Your task to perform on an android device: toggle javascript in the chrome app Image 0: 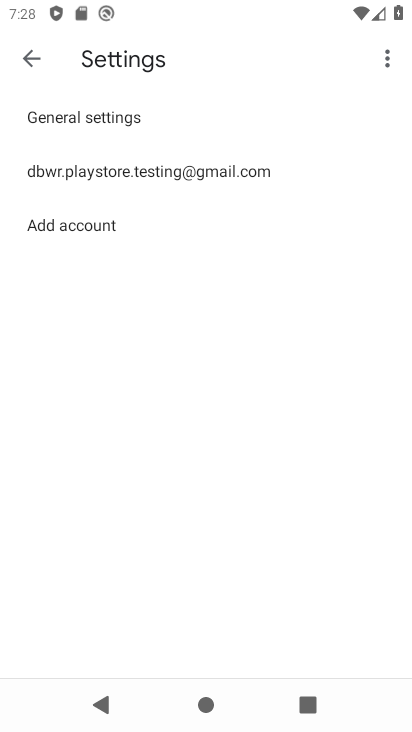
Step 0: press home button
Your task to perform on an android device: toggle javascript in the chrome app Image 1: 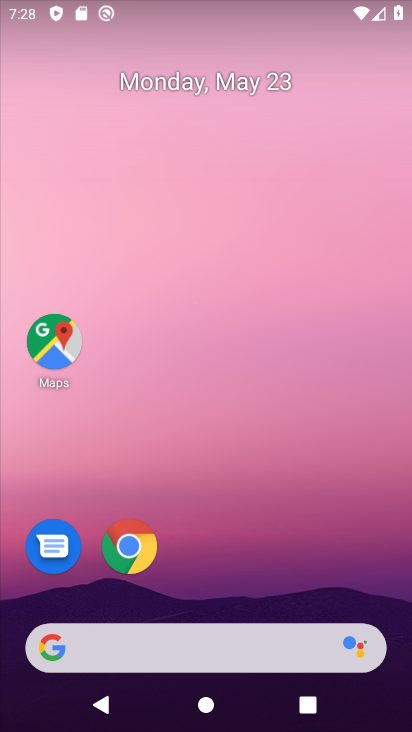
Step 1: drag from (375, 515) to (387, 115)
Your task to perform on an android device: toggle javascript in the chrome app Image 2: 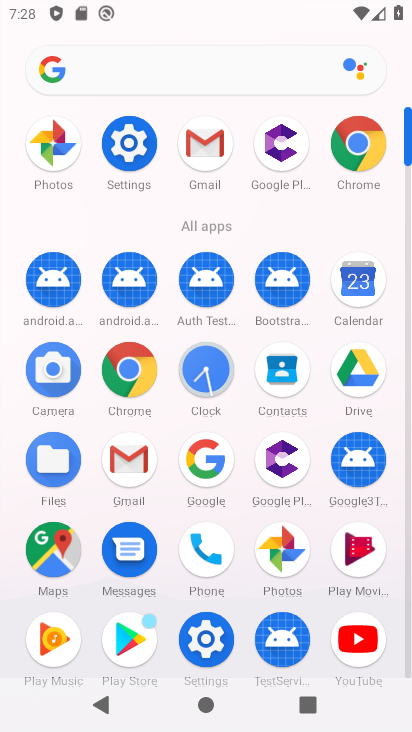
Step 2: click (145, 395)
Your task to perform on an android device: toggle javascript in the chrome app Image 3: 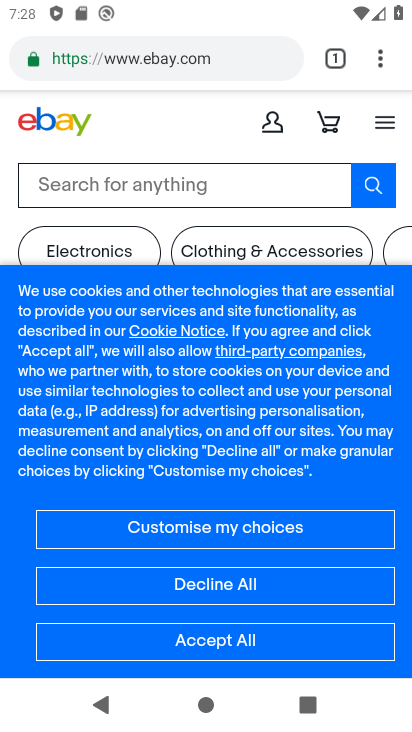
Step 3: click (386, 60)
Your task to perform on an android device: toggle javascript in the chrome app Image 4: 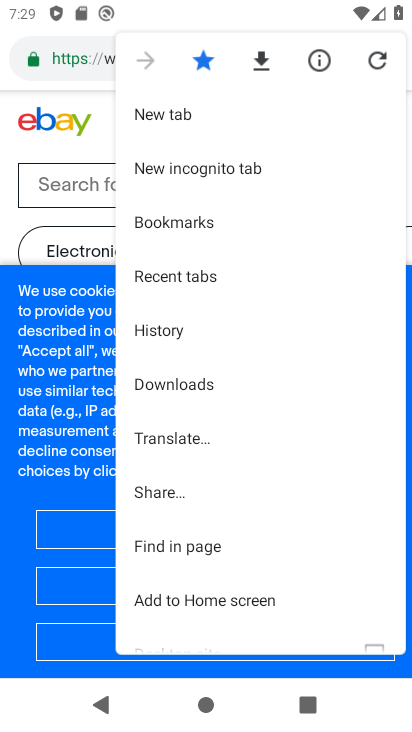
Step 4: drag from (347, 458) to (346, 378)
Your task to perform on an android device: toggle javascript in the chrome app Image 5: 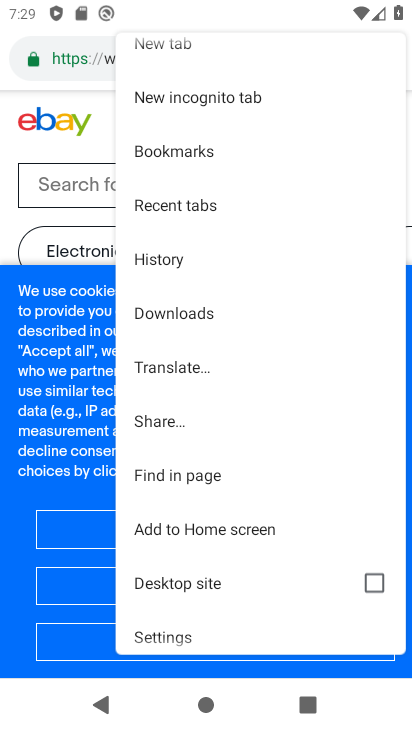
Step 5: drag from (346, 502) to (346, 414)
Your task to perform on an android device: toggle javascript in the chrome app Image 6: 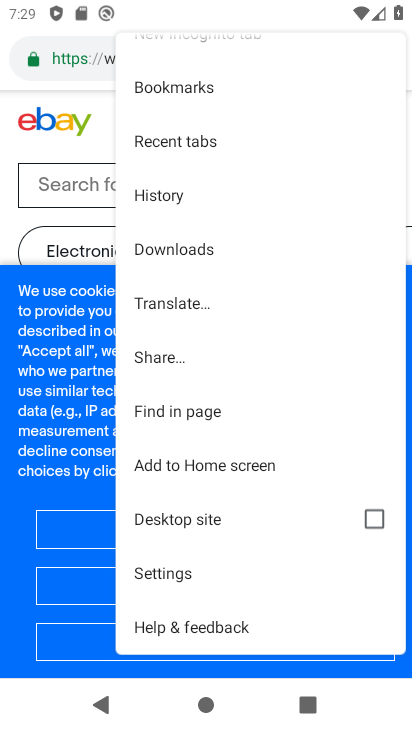
Step 6: drag from (310, 545) to (332, 416)
Your task to perform on an android device: toggle javascript in the chrome app Image 7: 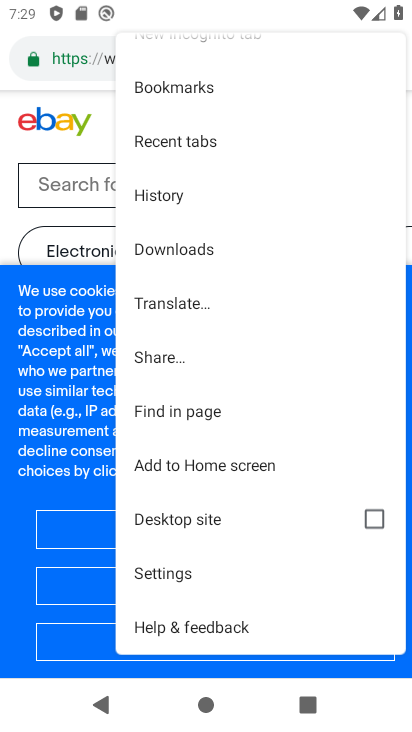
Step 7: click (208, 585)
Your task to perform on an android device: toggle javascript in the chrome app Image 8: 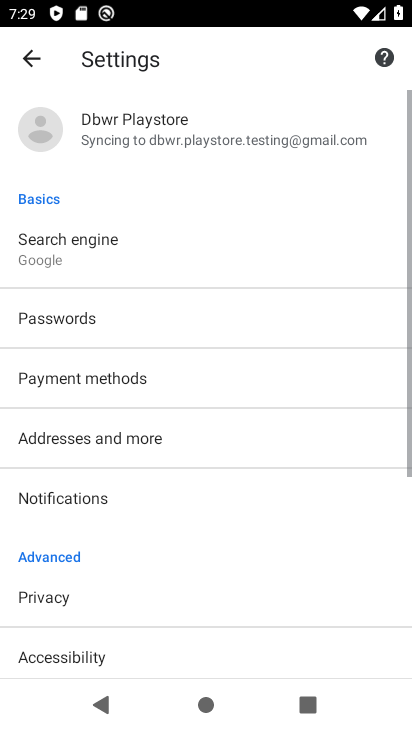
Step 8: drag from (336, 574) to (350, 488)
Your task to perform on an android device: toggle javascript in the chrome app Image 9: 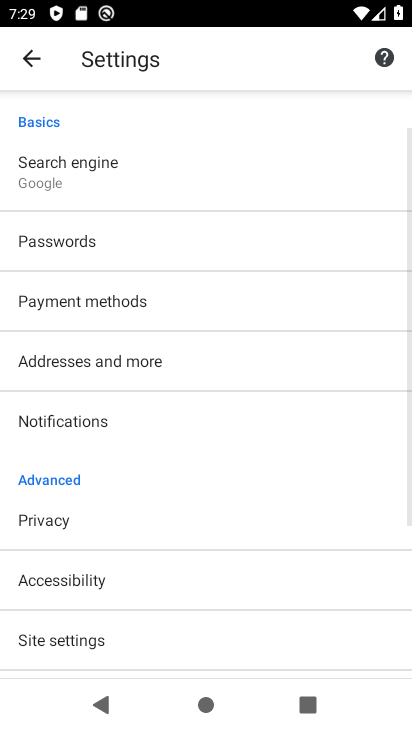
Step 9: drag from (352, 598) to (348, 480)
Your task to perform on an android device: toggle javascript in the chrome app Image 10: 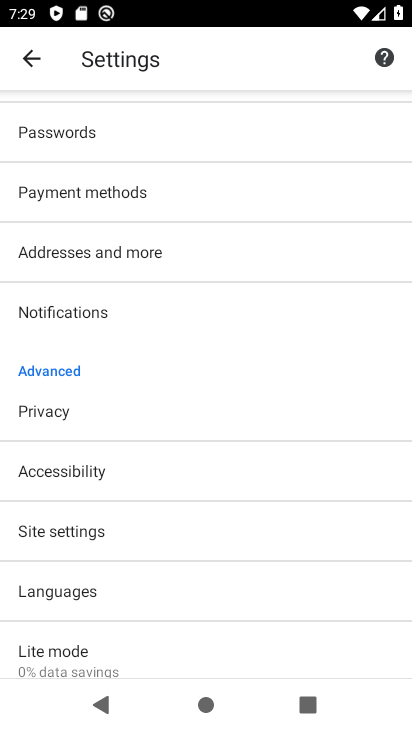
Step 10: drag from (330, 617) to (338, 505)
Your task to perform on an android device: toggle javascript in the chrome app Image 11: 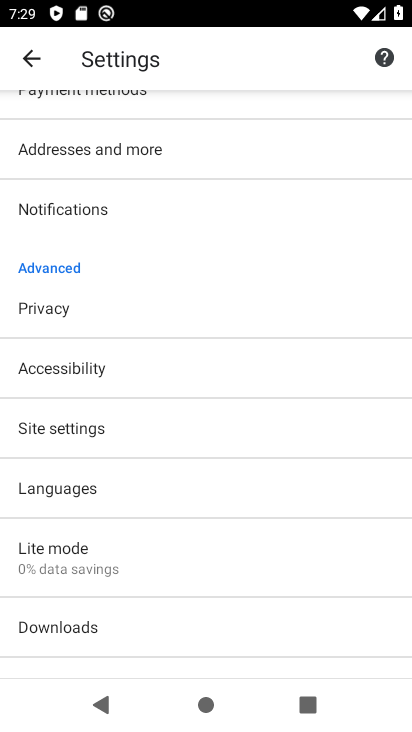
Step 11: drag from (355, 633) to (356, 531)
Your task to perform on an android device: toggle javascript in the chrome app Image 12: 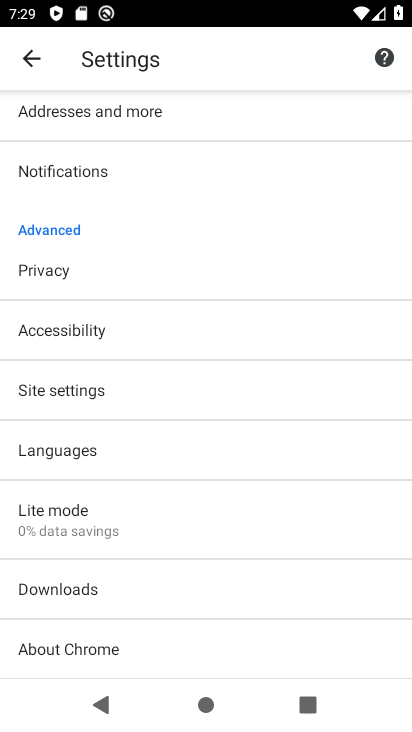
Step 12: drag from (359, 642) to (355, 480)
Your task to perform on an android device: toggle javascript in the chrome app Image 13: 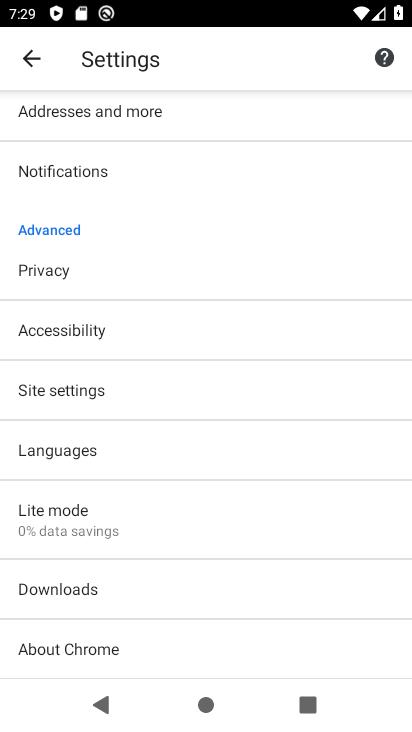
Step 13: drag from (358, 429) to (352, 595)
Your task to perform on an android device: toggle javascript in the chrome app Image 14: 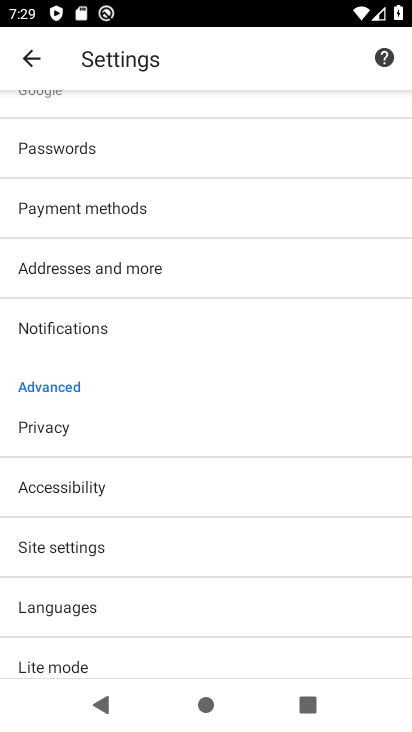
Step 14: click (248, 558)
Your task to perform on an android device: toggle javascript in the chrome app Image 15: 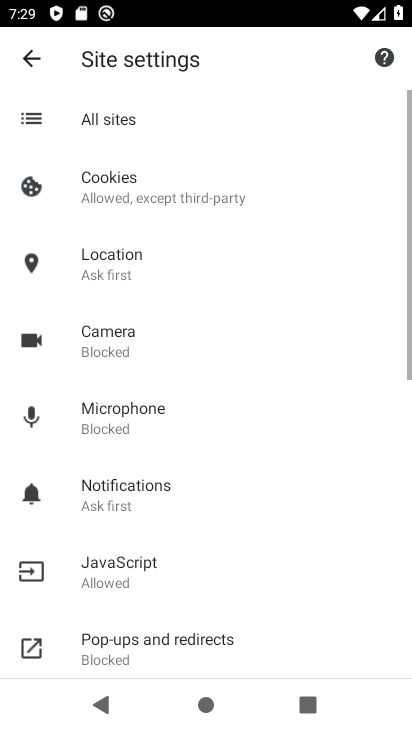
Step 15: drag from (349, 586) to (353, 515)
Your task to perform on an android device: toggle javascript in the chrome app Image 16: 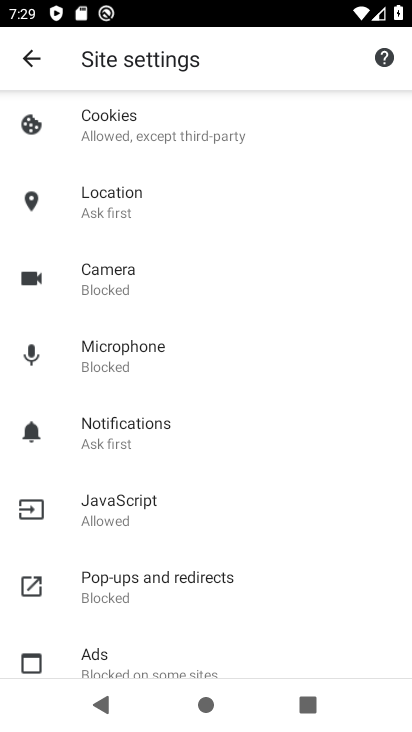
Step 16: drag from (360, 621) to (355, 523)
Your task to perform on an android device: toggle javascript in the chrome app Image 17: 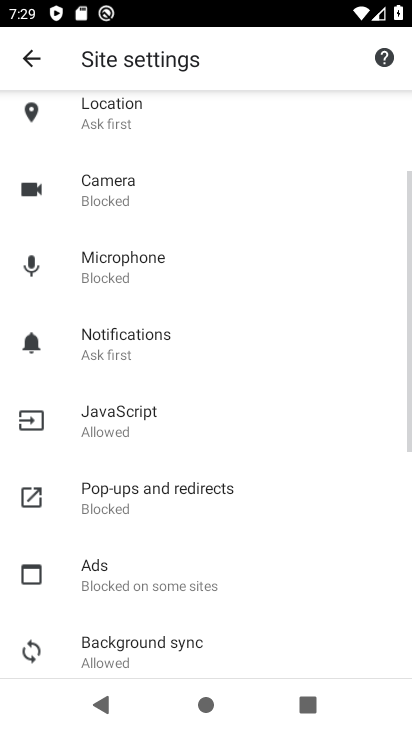
Step 17: drag from (375, 577) to (370, 441)
Your task to perform on an android device: toggle javascript in the chrome app Image 18: 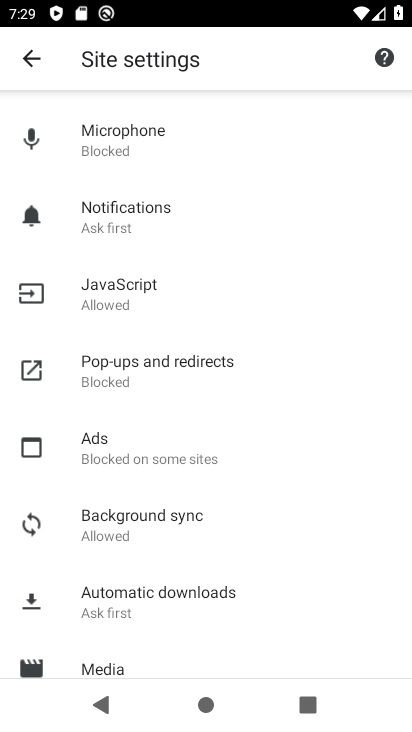
Step 18: drag from (382, 561) to (388, 389)
Your task to perform on an android device: toggle javascript in the chrome app Image 19: 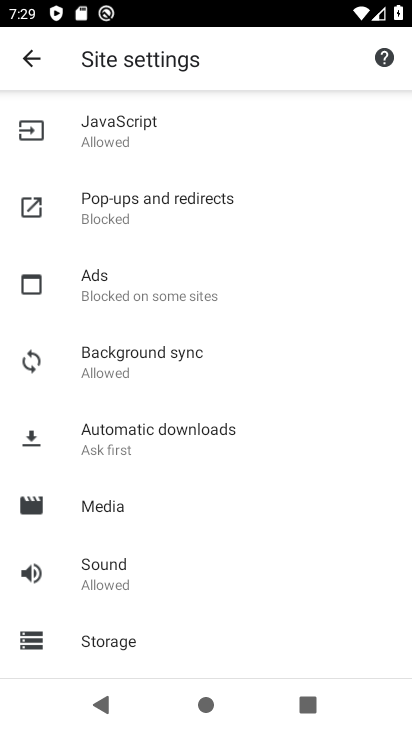
Step 19: drag from (375, 602) to (374, 515)
Your task to perform on an android device: toggle javascript in the chrome app Image 20: 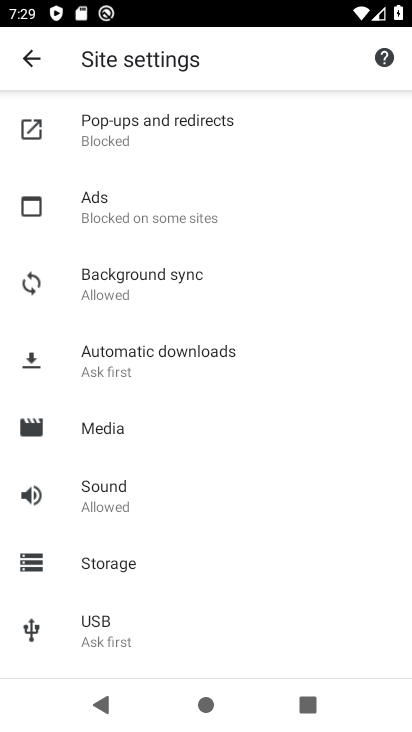
Step 20: drag from (374, 637) to (370, 532)
Your task to perform on an android device: toggle javascript in the chrome app Image 21: 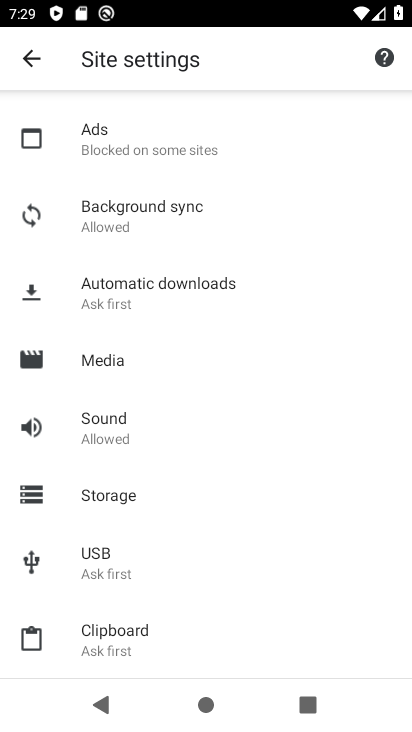
Step 21: drag from (370, 458) to (370, 521)
Your task to perform on an android device: toggle javascript in the chrome app Image 22: 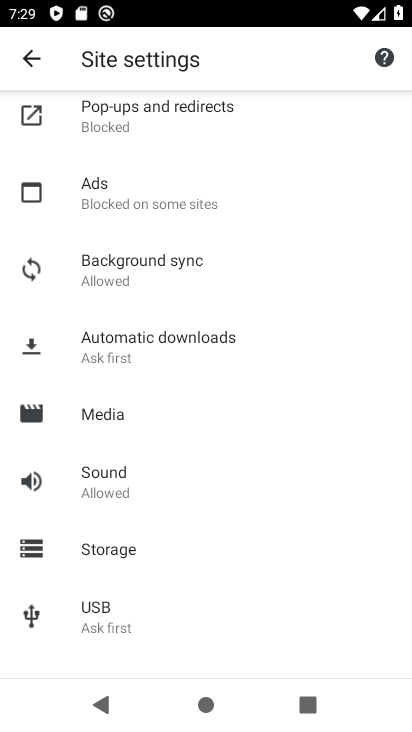
Step 22: drag from (381, 371) to (363, 523)
Your task to perform on an android device: toggle javascript in the chrome app Image 23: 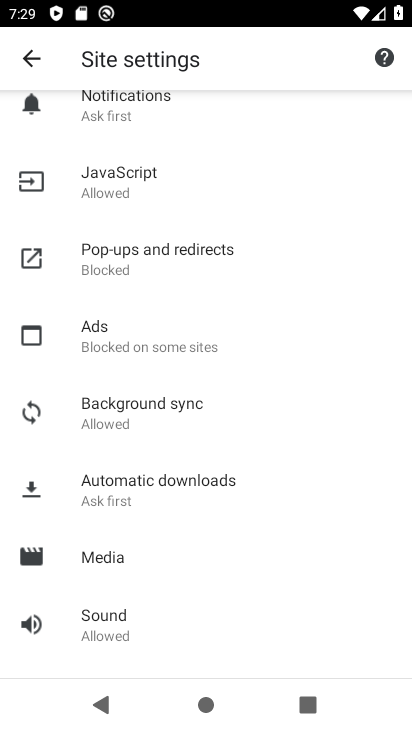
Step 23: drag from (361, 347) to (344, 497)
Your task to perform on an android device: toggle javascript in the chrome app Image 24: 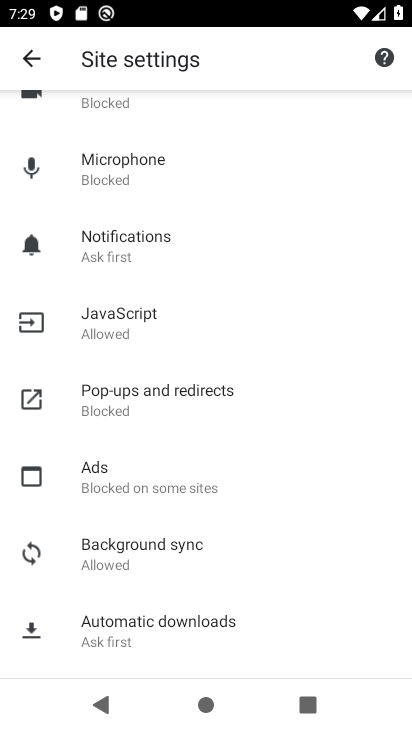
Step 24: drag from (354, 374) to (341, 477)
Your task to perform on an android device: toggle javascript in the chrome app Image 25: 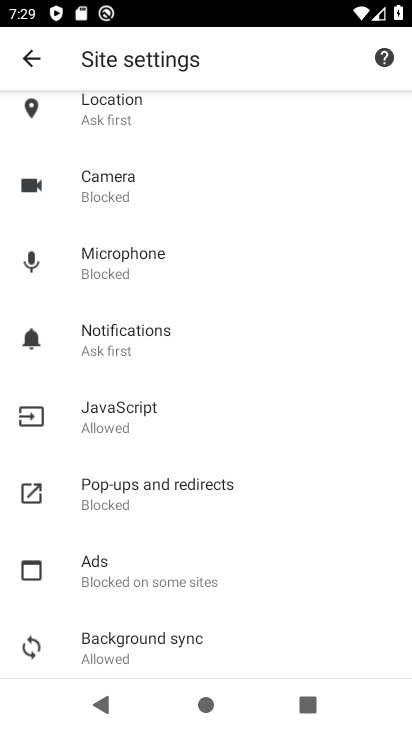
Step 25: click (183, 423)
Your task to perform on an android device: toggle javascript in the chrome app Image 26: 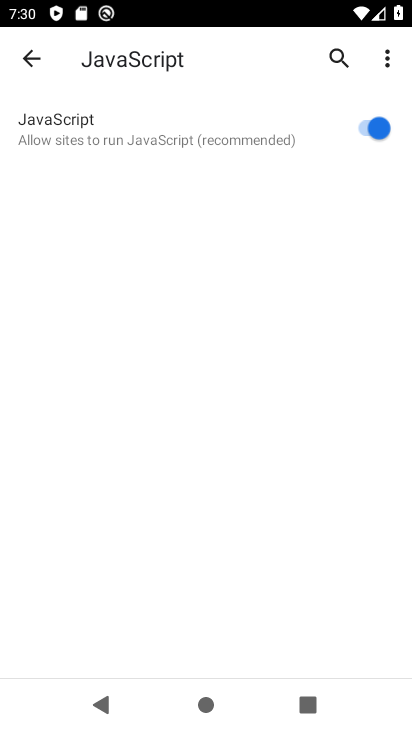
Step 26: click (374, 133)
Your task to perform on an android device: toggle javascript in the chrome app Image 27: 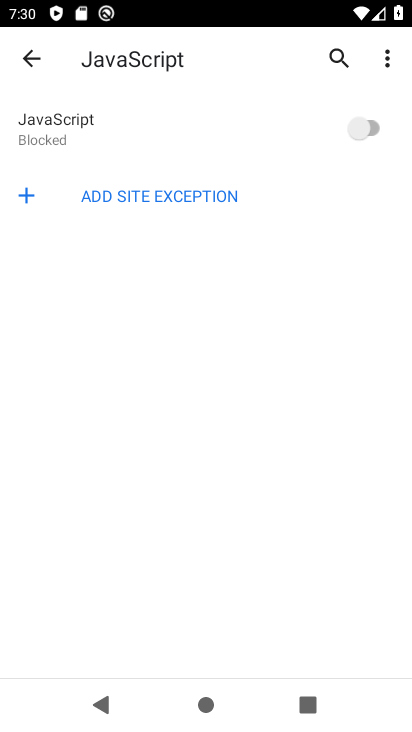
Step 27: task complete